Your task to perform on an android device: toggle wifi Image 0: 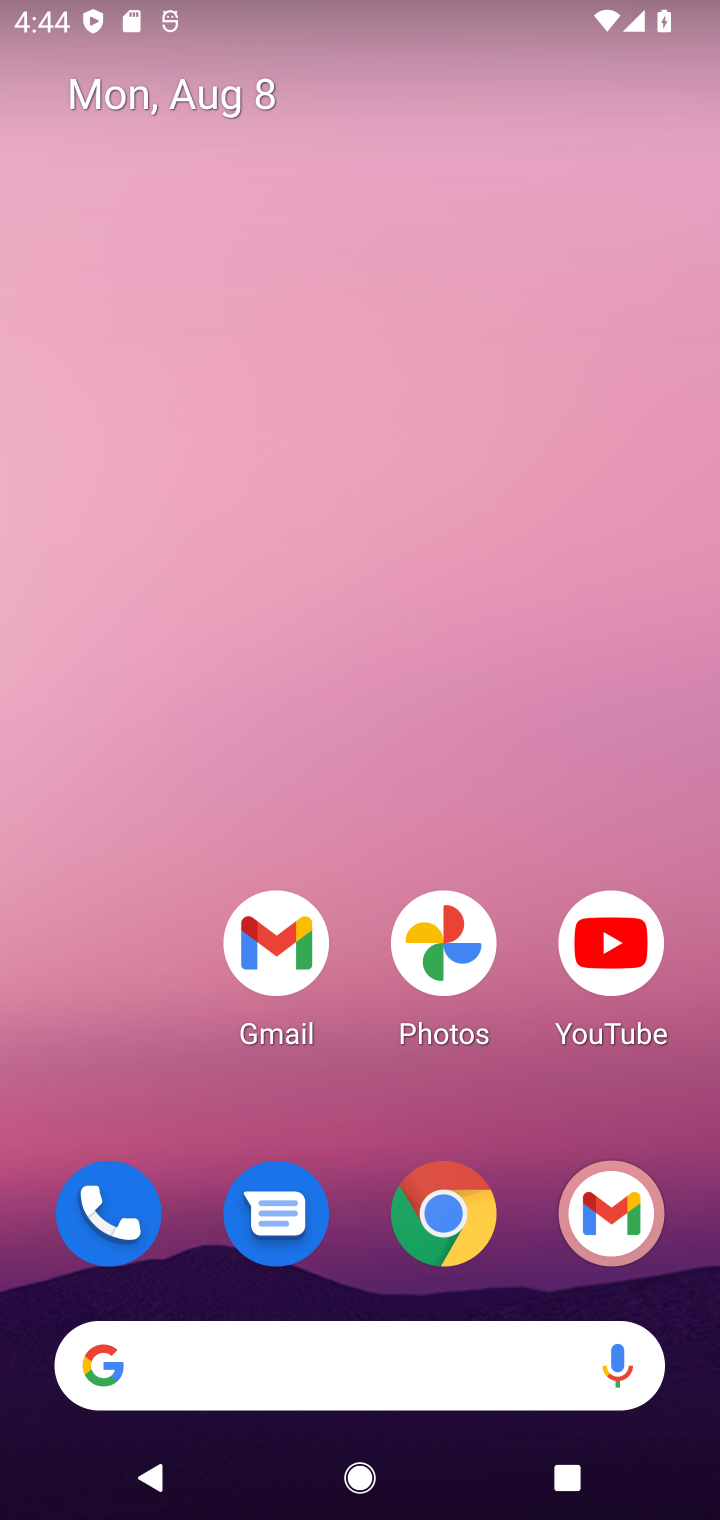
Step 0: drag from (347, 1101) to (346, 479)
Your task to perform on an android device: toggle wifi Image 1: 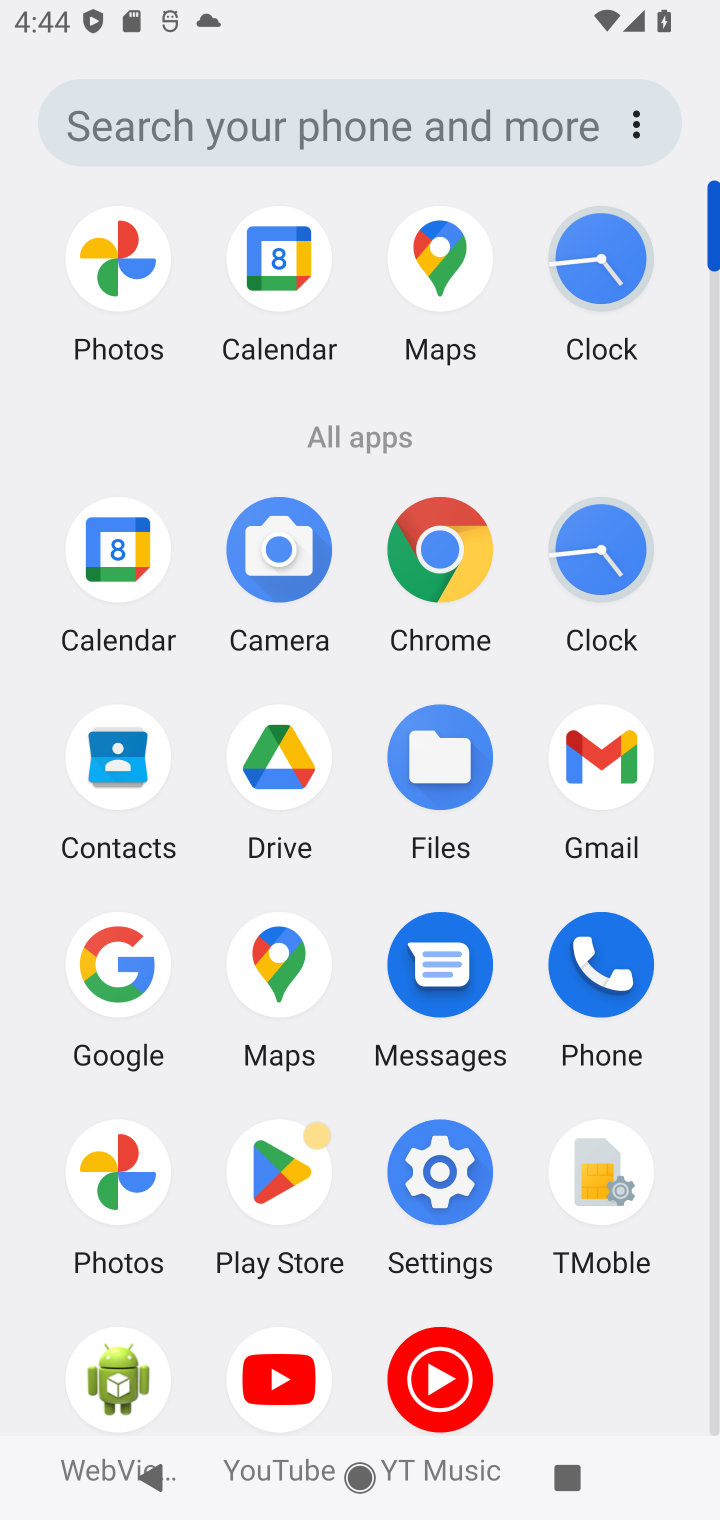
Step 1: click (433, 1154)
Your task to perform on an android device: toggle wifi Image 2: 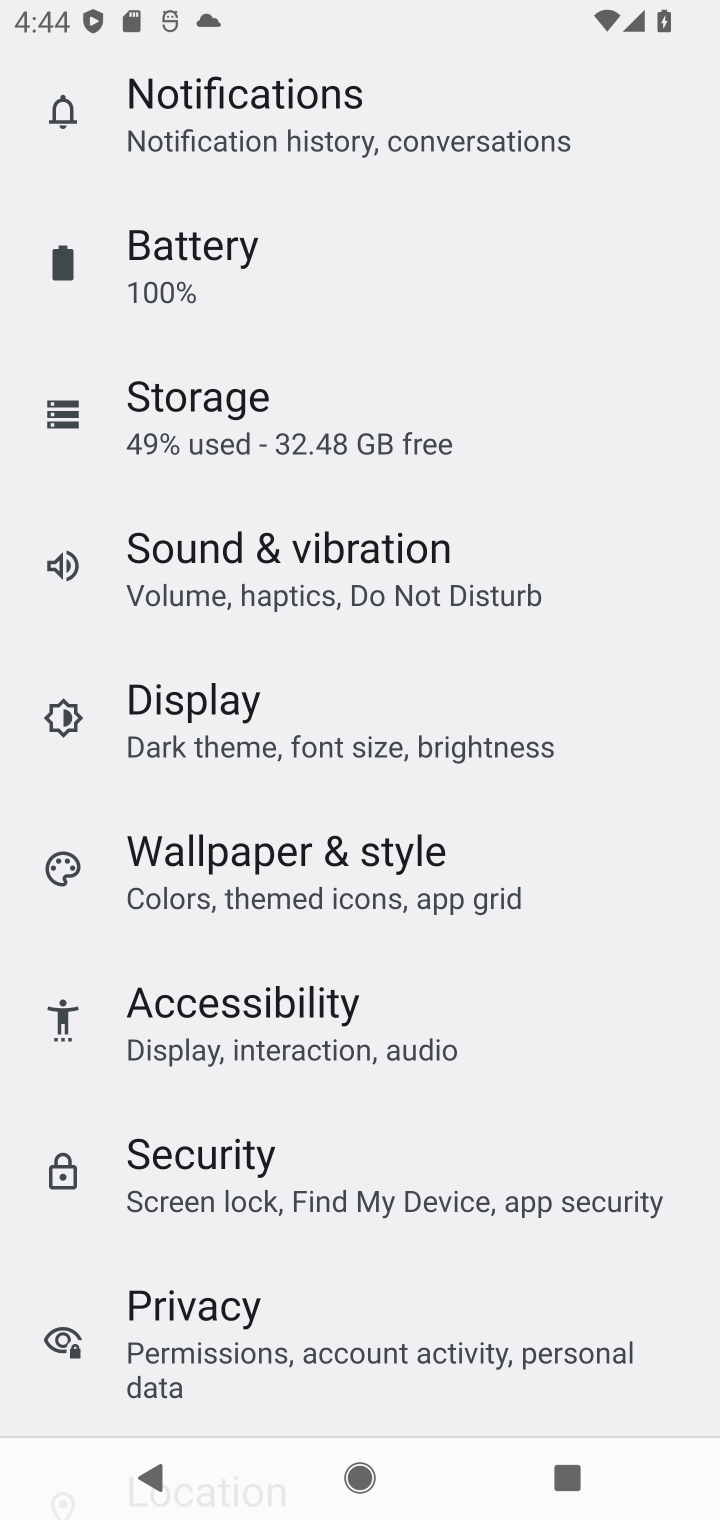
Step 2: drag from (385, 312) to (393, 1112)
Your task to perform on an android device: toggle wifi Image 3: 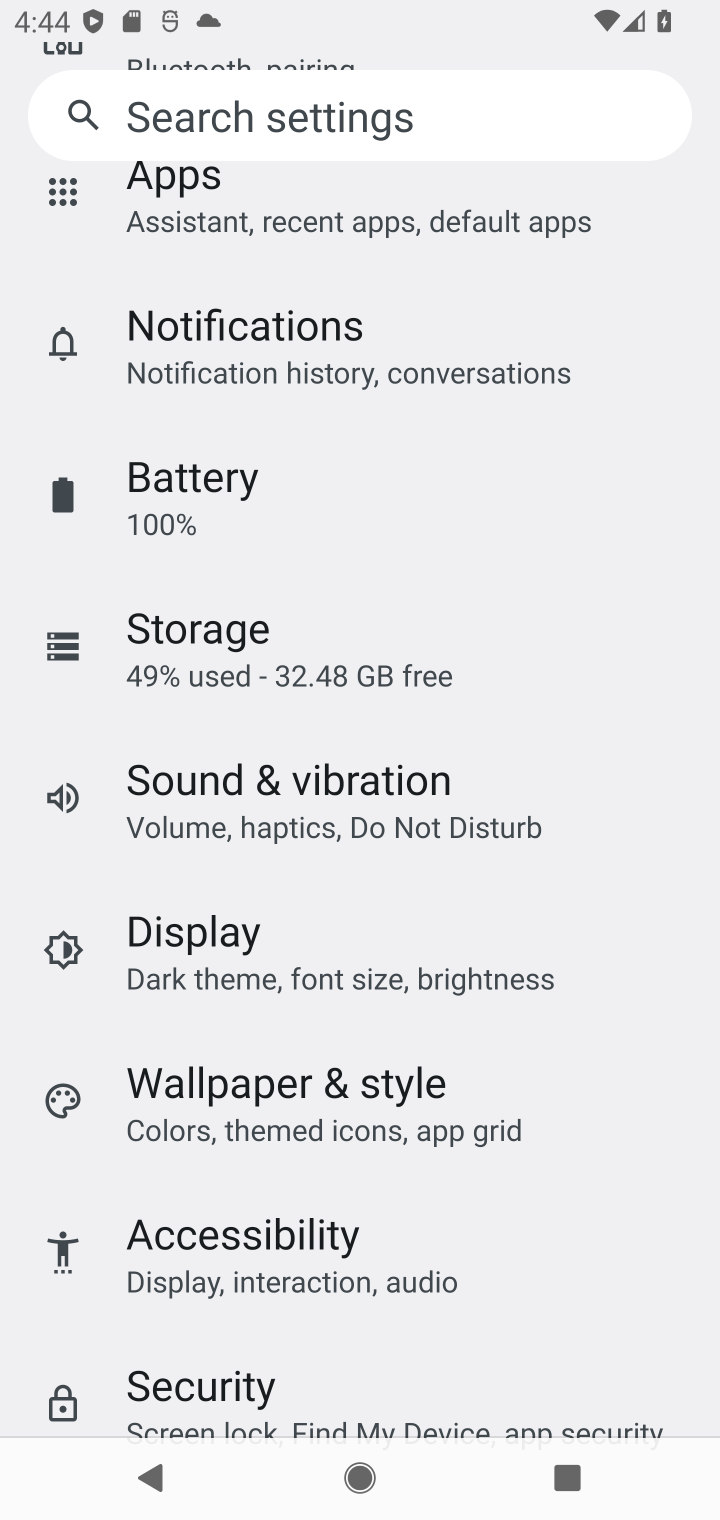
Step 3: drag from (451, 269) to (608, 1318)
Your task to perform on an android device: toggle wifi Image 4: 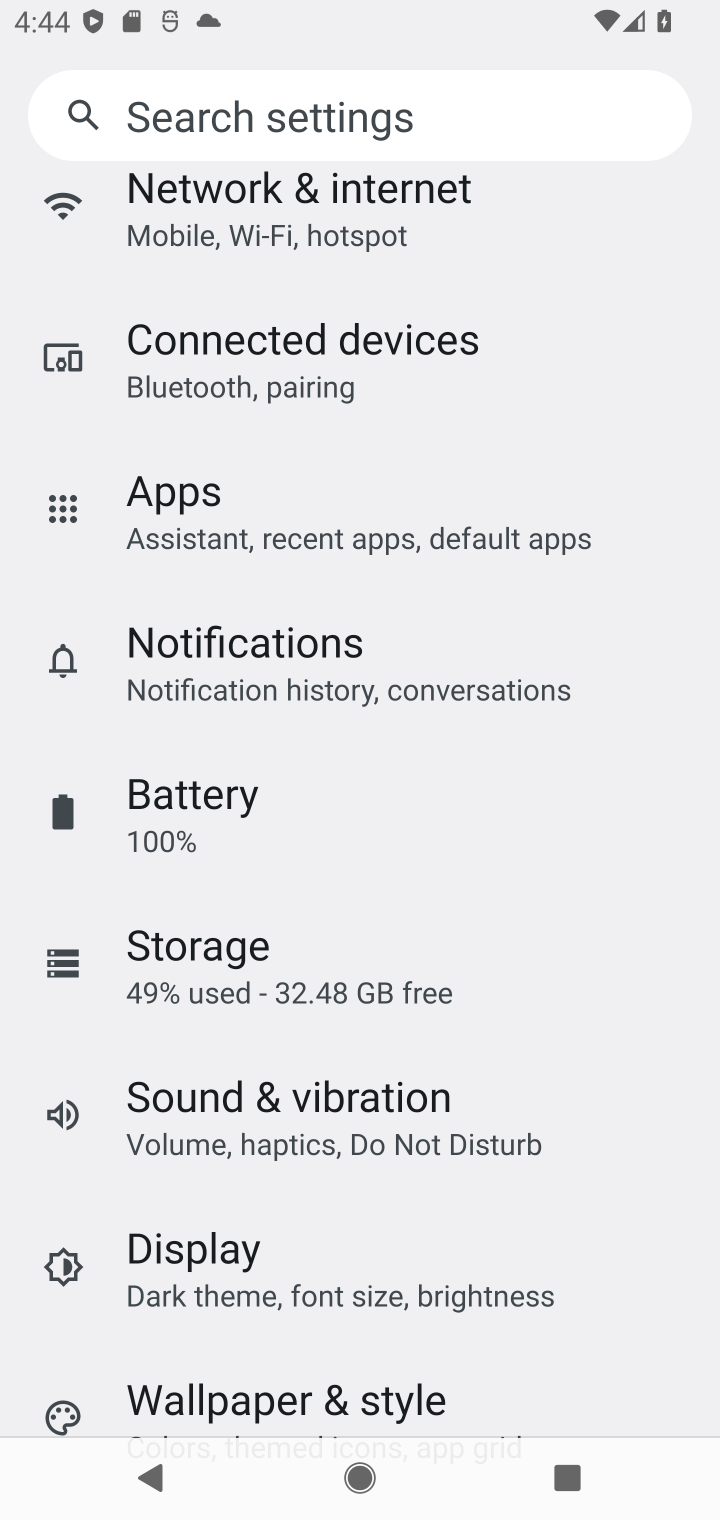
Step 4: click (487, 221)
Your task to perform on an android device: toggle wifi Image 5: 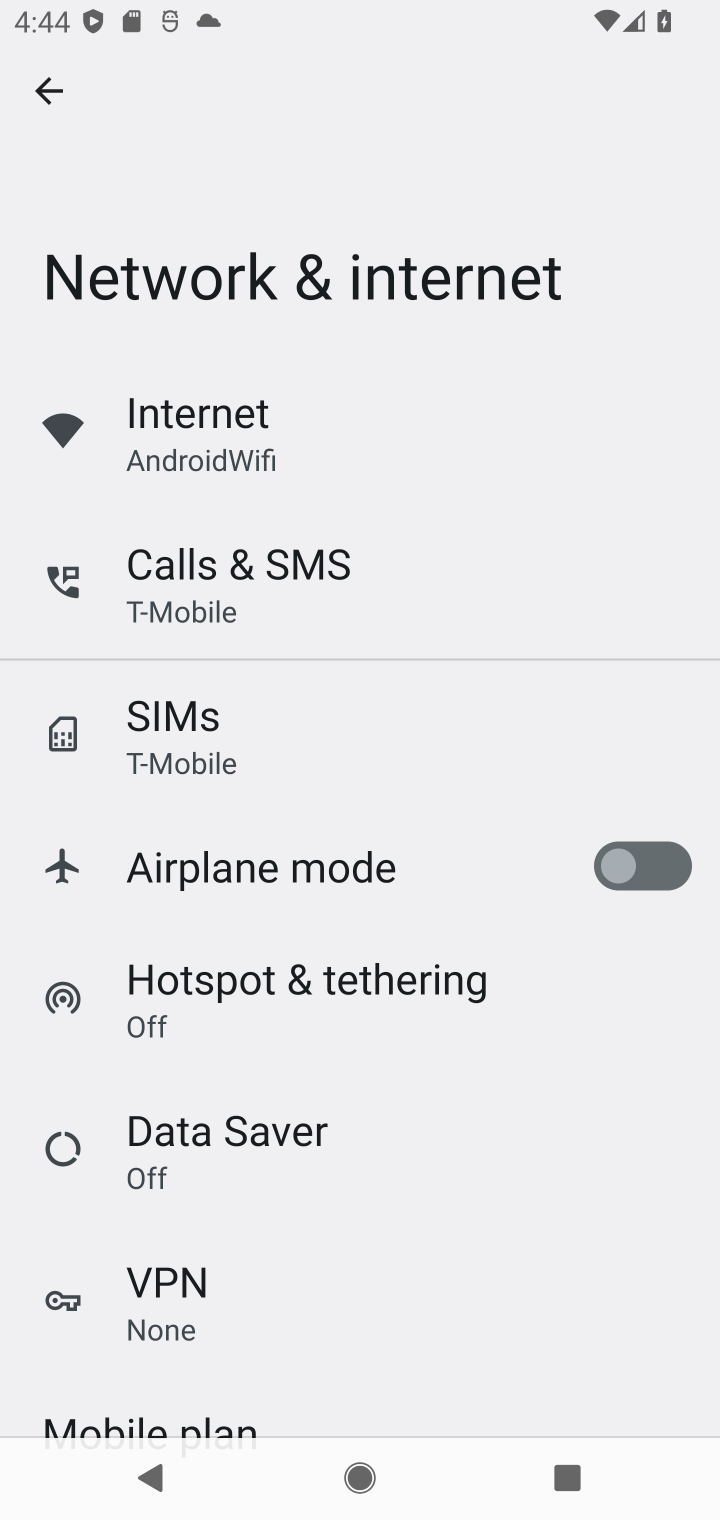
Step 5: click (188, 402)
Your task to perform on an android device: toggle wifi Image 6: 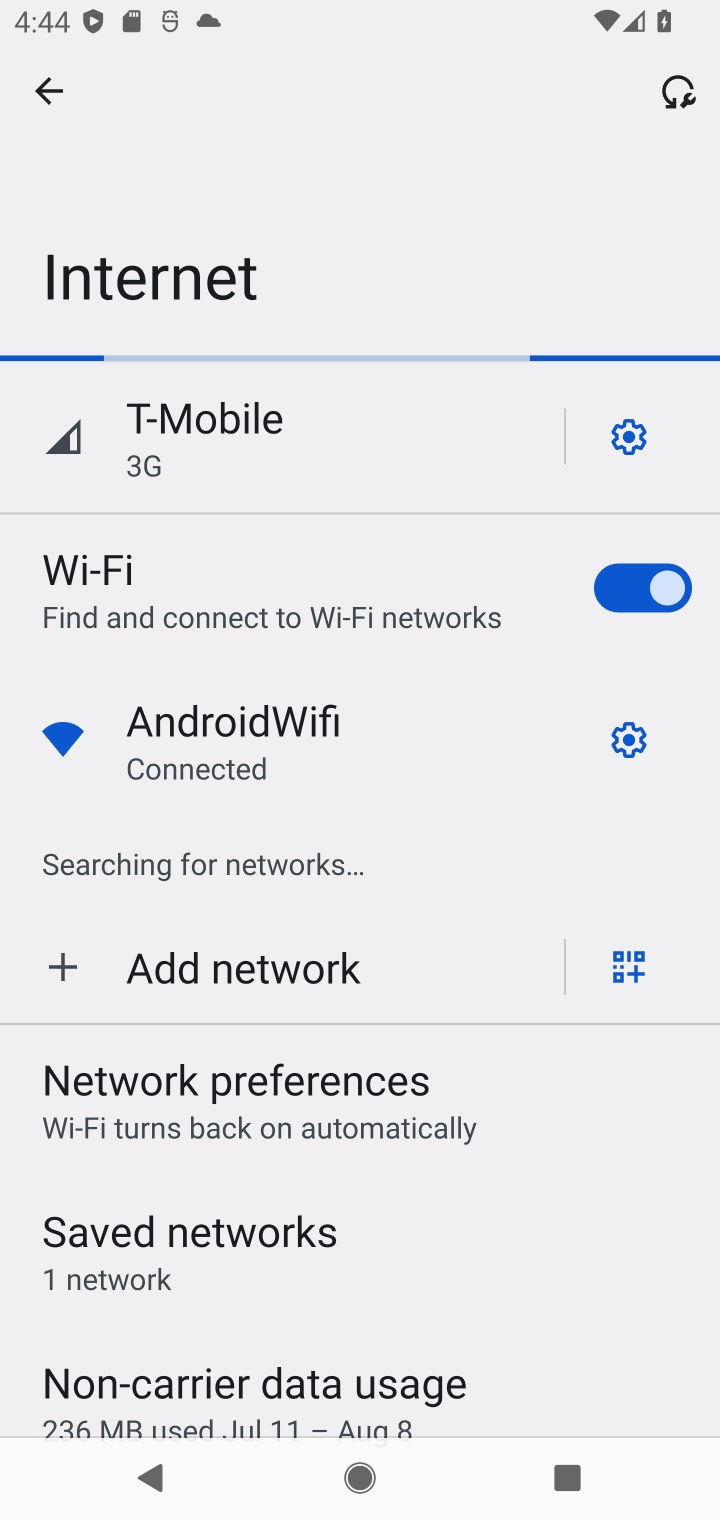
Step 6: click (621, 619)
Your task to perform on an android device: toggle wifi Image 7: 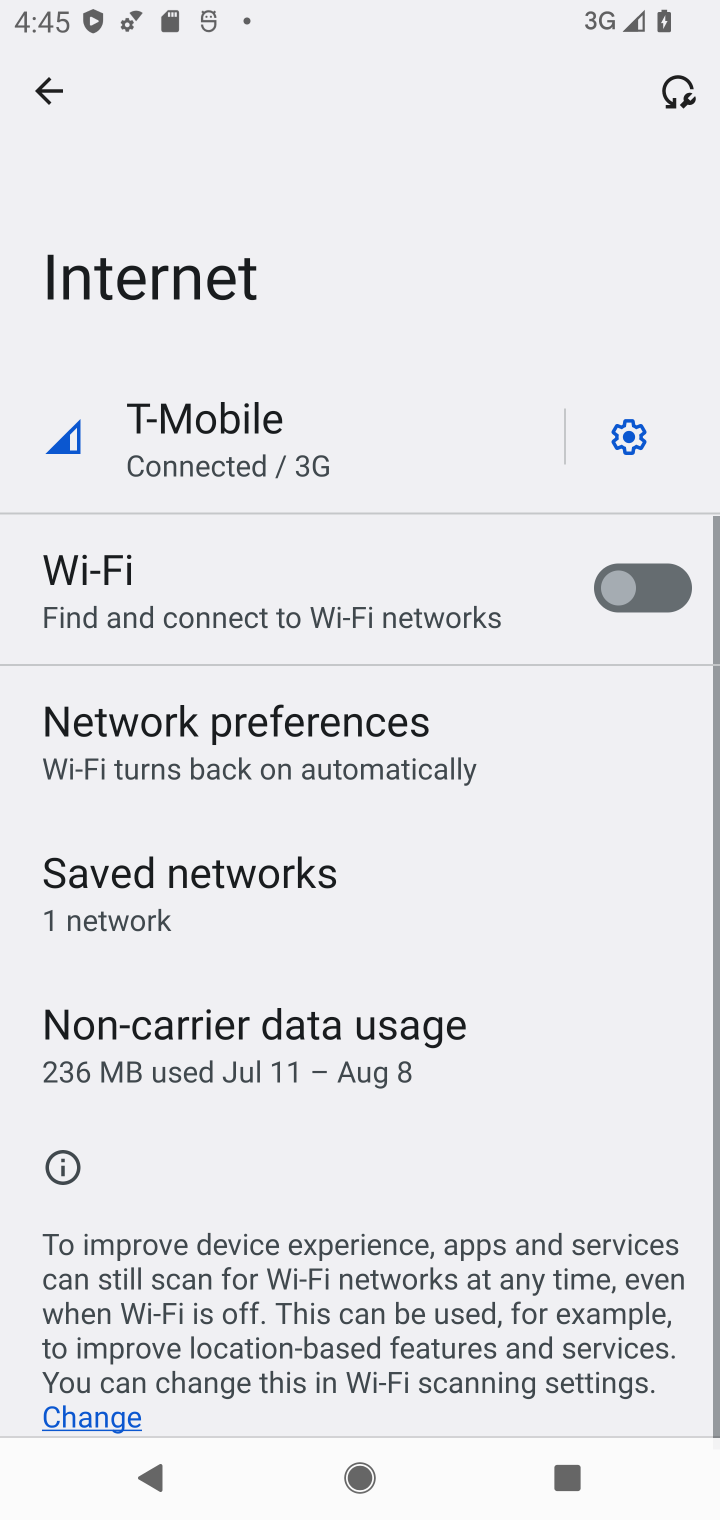
Step 7: task complete